Your task to perform on an android device: Open the calendar app, open the side menu, and click the "Day" option Image 0: 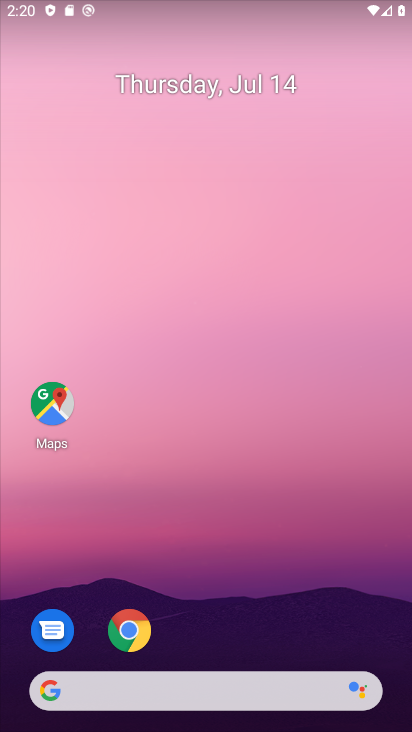
Step 0: press home button
Your task to perform on an android device: Open the calendar app, open the side menu, and click the "Day" option Image 1: 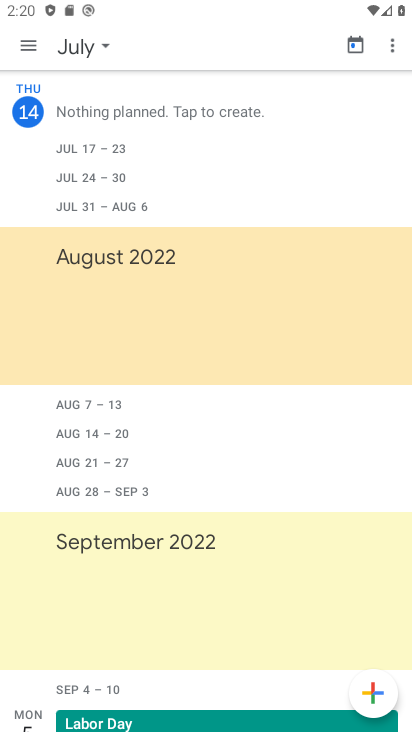
Step 1: click (192, 39)
Your task to perform on an android device: Open the calendar app, open the side menu, and click the "Day" option Image 2: 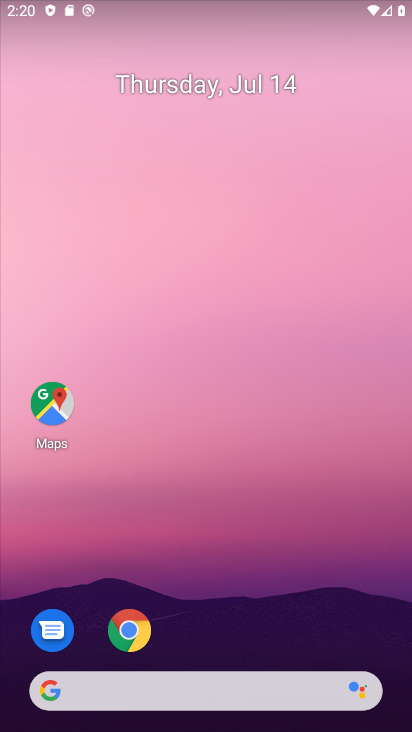
Step 2: drag from (219, 651) to (219, 1)
Your task to perform on an android device: Open the calendar app, open the side menu, and click the "Day" option Image 3: 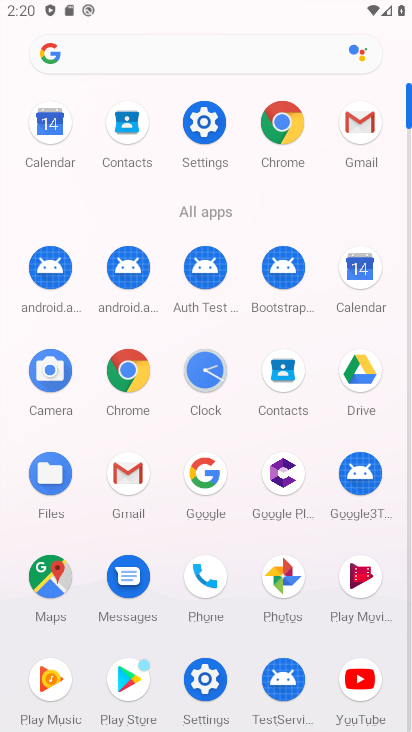
Step 3: click (359, 272)
Your task to perform on an android device: Open the calendar app, open the side menu, and click the "Day" option Image 4: 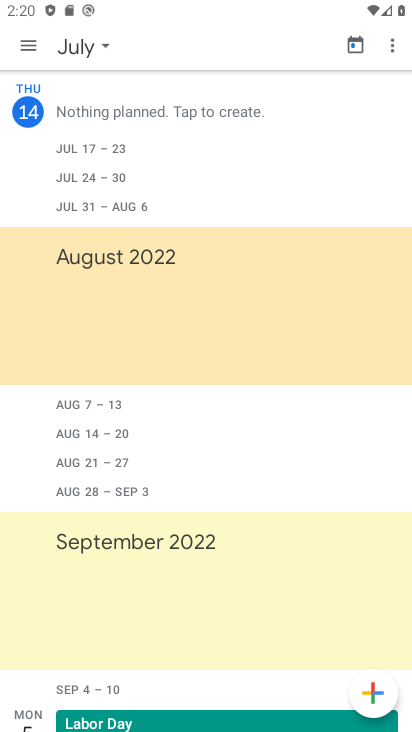
Step 4: click (22, 43)
Your task to perform on an android device: Open the calendar app, open the side menu, and click the "Day" option Image 5: 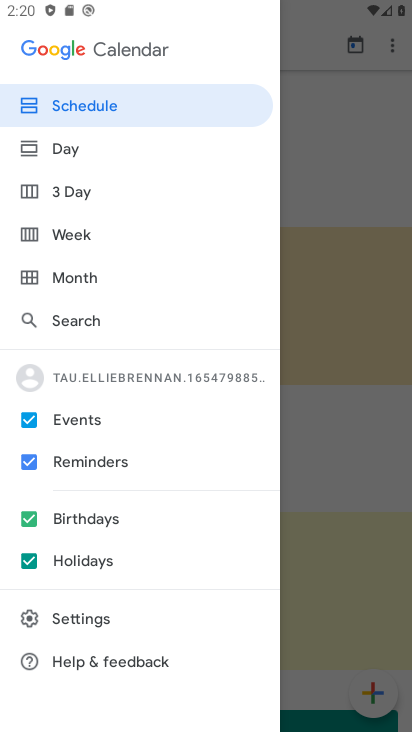
Step 5: click (85, 144)
Your task to perform on an android device: Open the calendar app, open the side menu, and click the "Day" option Image 6: 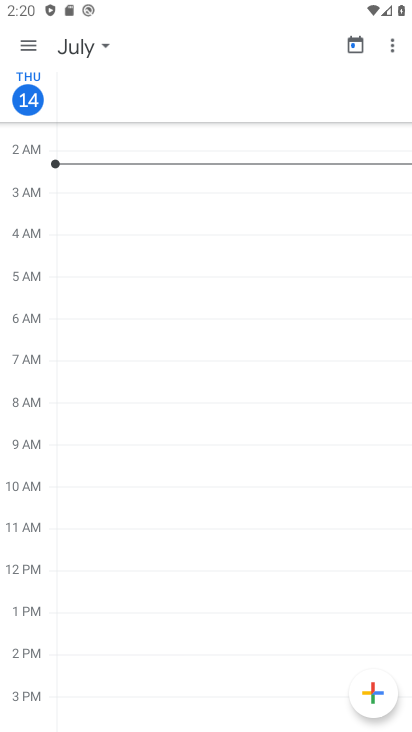
Step 6: task complete